Your task to perform on an android device: turn off priority inbox in the gmail app Image 0: 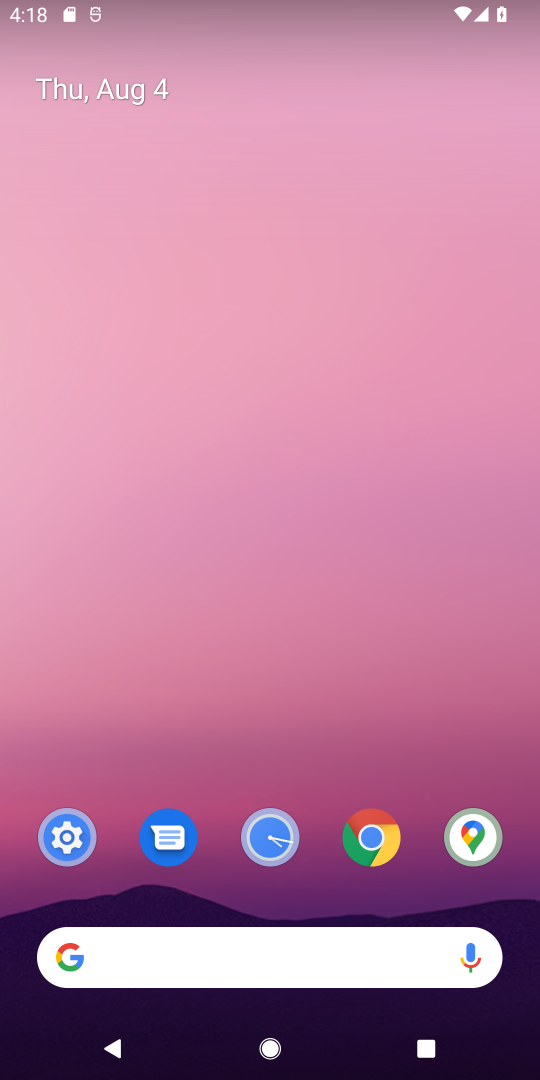
Step 0: drag from (274, 729) to (270, 0)
Your task to perform on an android device: turn off priority inbox in the gmail app Image 1: 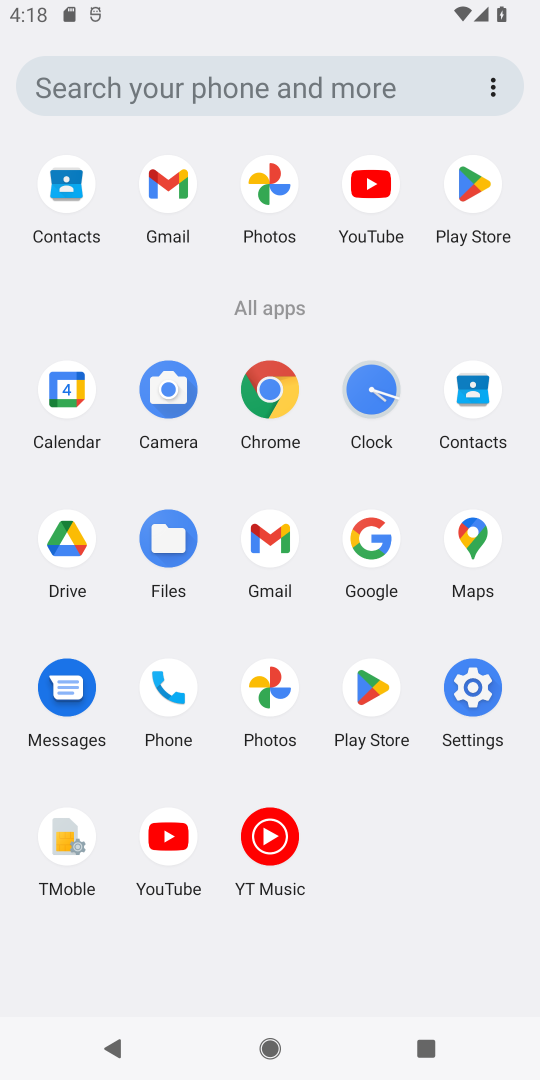
Step 1: click (265, 522)
Your task to perform on an android device: turn off priority inbox in the gmail app Image 2: 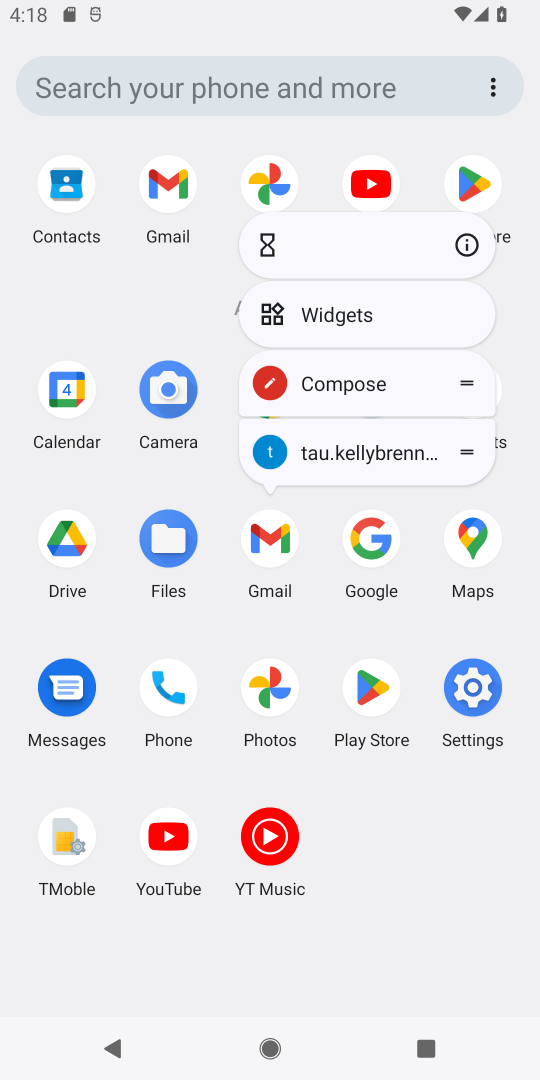
Step 2: click (271, 539)
Your task to perform on an android device: turn off priority inbox in the gmail app Image 3: 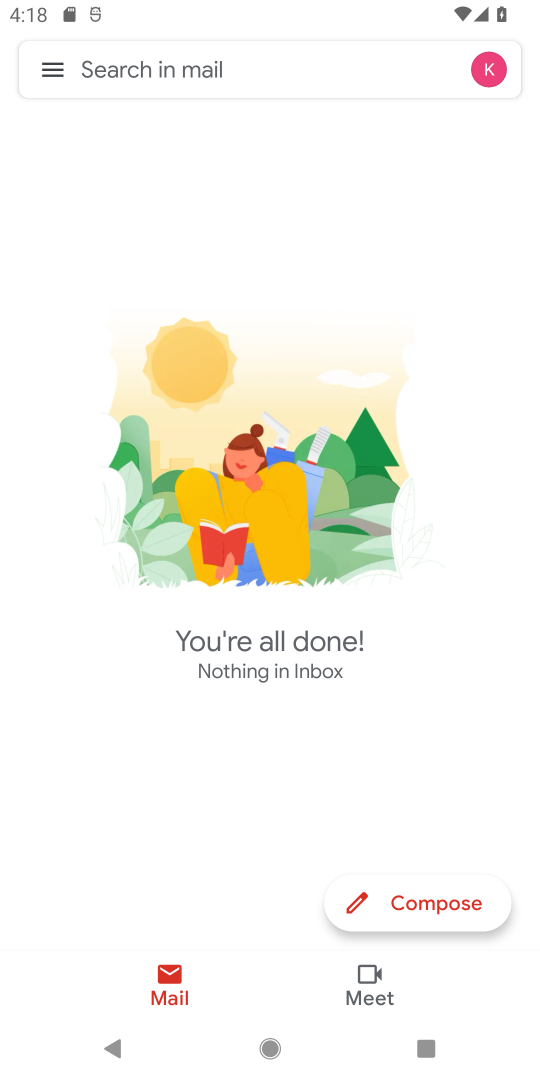
Step 3: click (47, 71)
Your task to perform on an android device: turn off priority inbox in the gmail app Image 4: 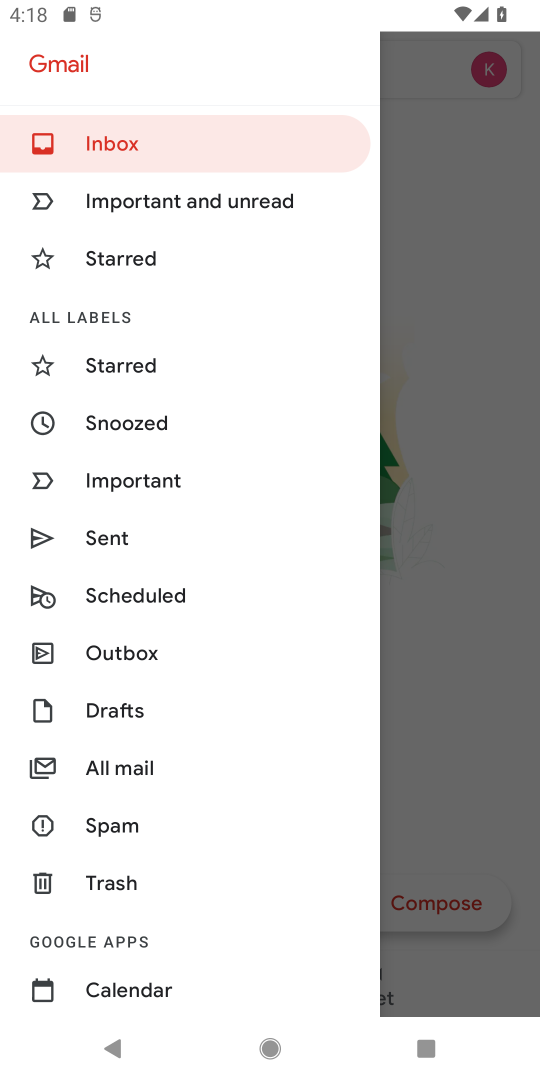
Step 4: drag from (132, 958) to (266, 84)
Your task to perform on an android device: turn off priority inbox in the gmail app Image 5: 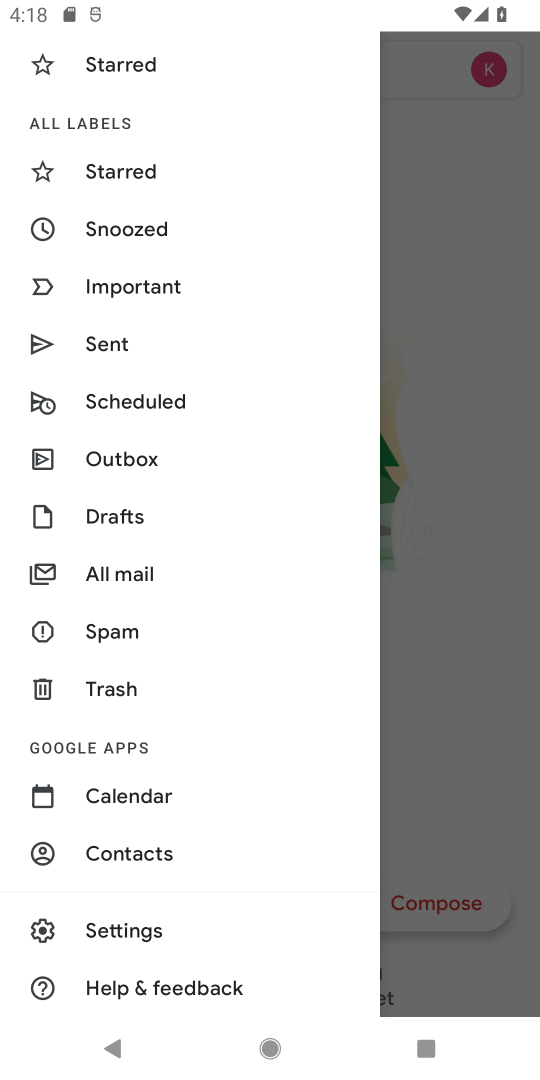
Step 5: click (156, 929)
Your task to perform on an android device: turn off priority inbox in the gmail app Image 6: 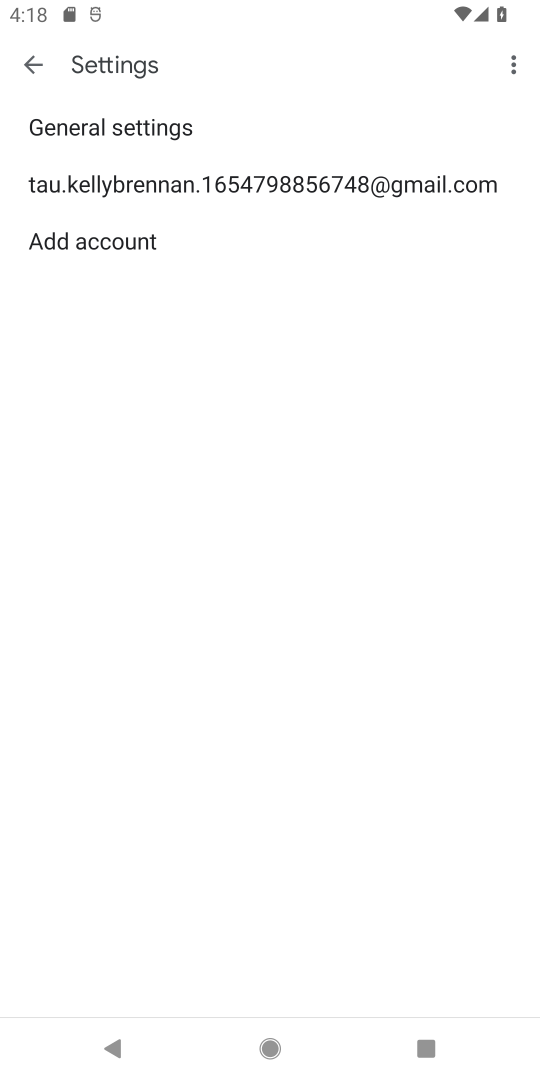
Step 6: click (191, 173)
Your task to perform on an android device: turn off priority inbox in the gmail app Image 7: 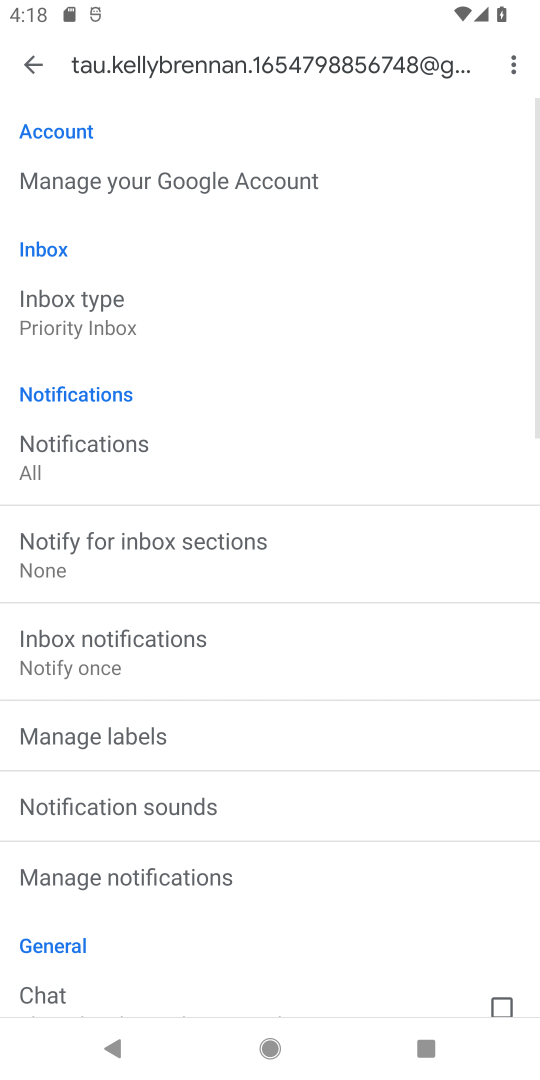
Step 7: click (101, 302)
Your task to perform on an android device: turn off priority inbox in the gmail app Image 8: 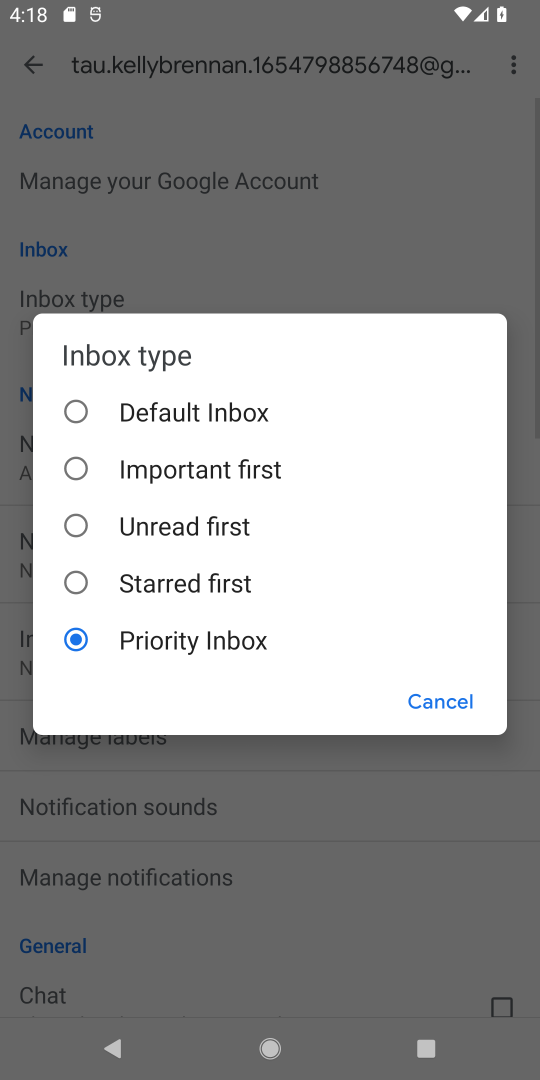
Step 8: click (74, 580)
Your task to perform on an android device: turn off priority inbox in the gmail app Image 9: 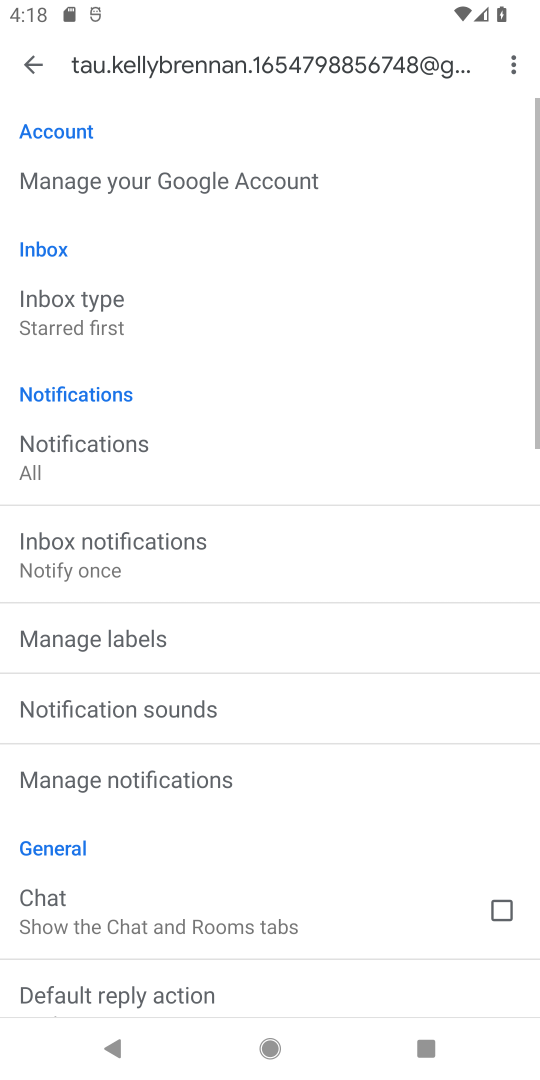
Step 9: task complete